Your task to perform on an android device: delete a single message in the gmail app Image 0: 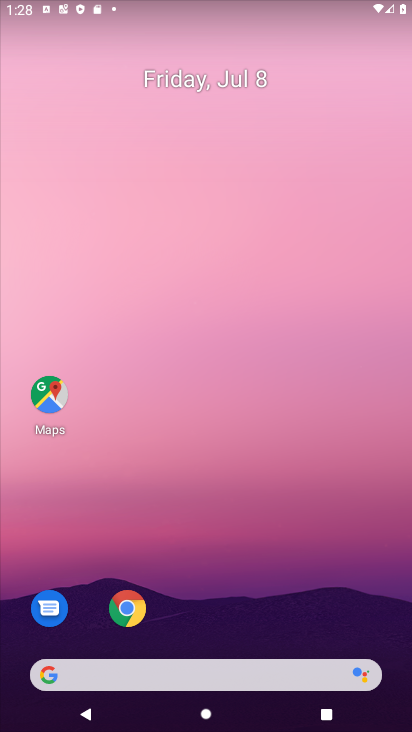
Step 0: drag from (393, 628) to (338, 143)
Your task to perform on an android device: delete a single message in the gmail app Image 1: 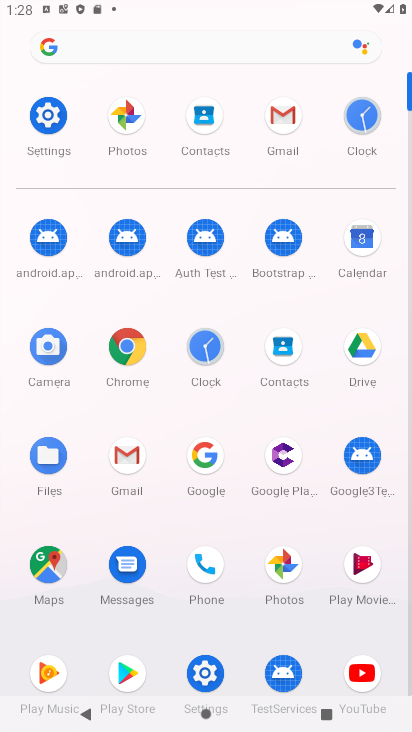
Step 1: click (125, 453)
Your task to perform on an android device: delete a single message in the gmail app Image 2: 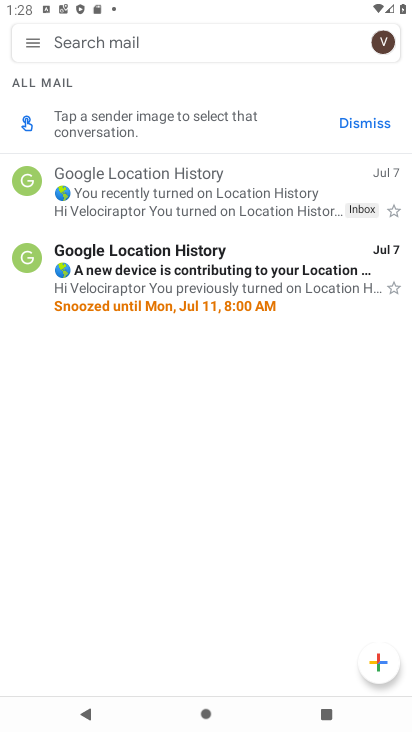
Step 2: click (160, 174)
Your task to perform on an android device: delete a single message in the gmail app Image 3: 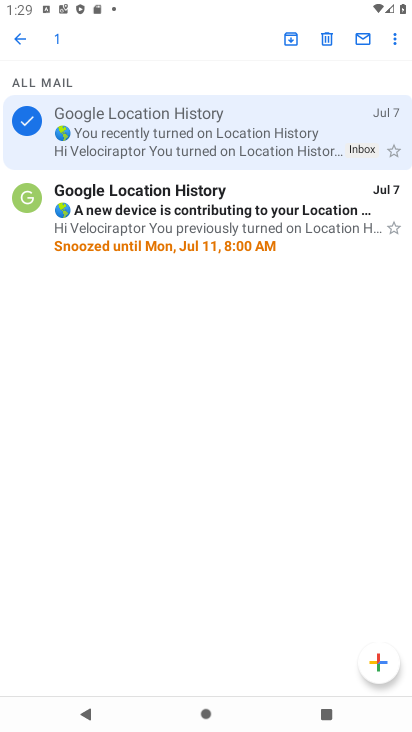
Step 3: click (325, 41)
Your task to perform on an android device: delete a single message in the gmail app Image 4: 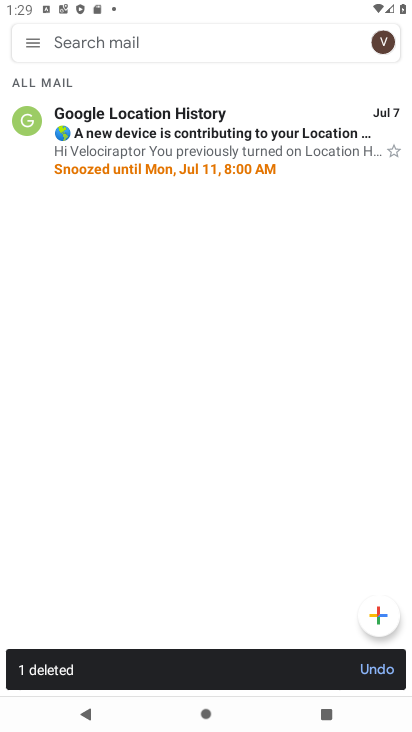
Step 4: task complete